Your task to perform on an android device: Go to Maps Image 0: 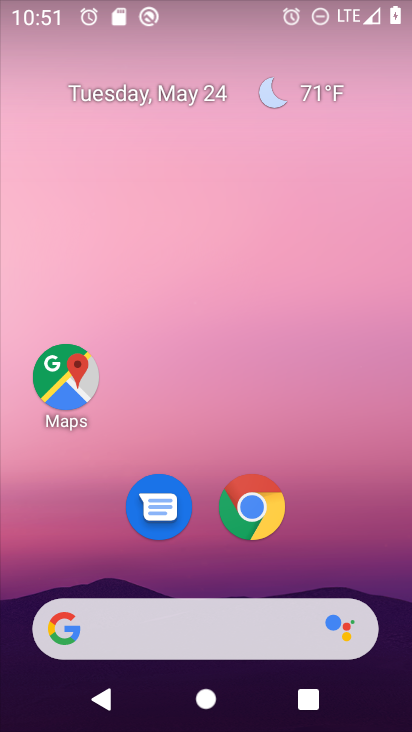
Step 0: drag from (257, 723) to (203, 6)
Your task to perform on an android device: Go to Maps Image 1: 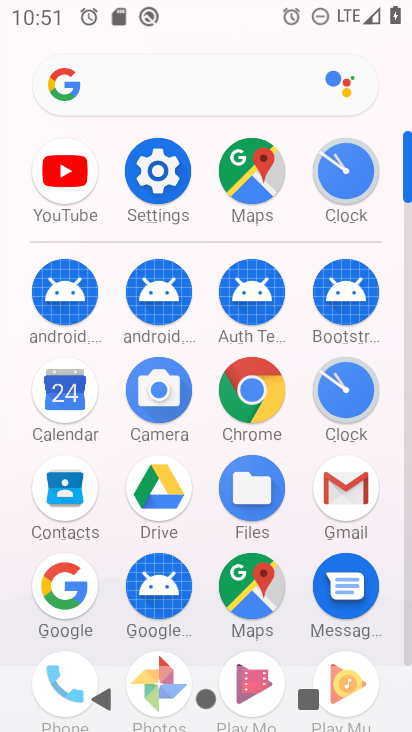
Step 1: click (247, 590)
Your task to perform on an android device: Go to Maps Image 2: 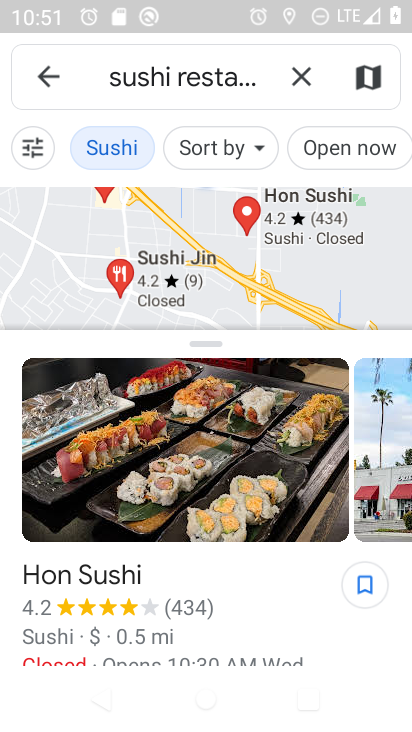
Step 2: task complete